Your task to perform on an android device: Set the phone to "Do not disturb". Image 0: 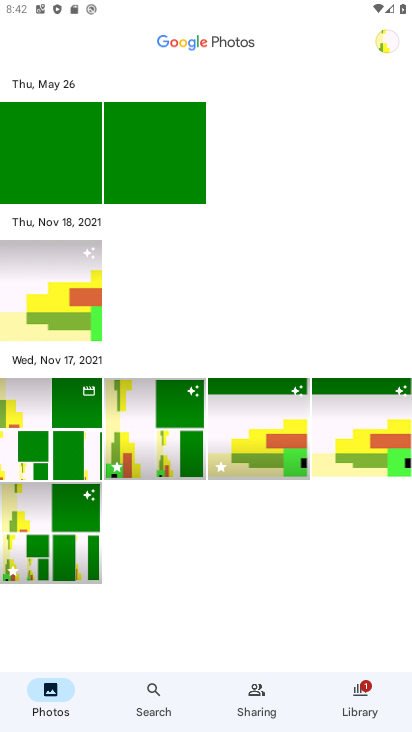
Step 0: press home button
Your task to perform on an android device: Set the phone to "Do not disturb". Image 1: 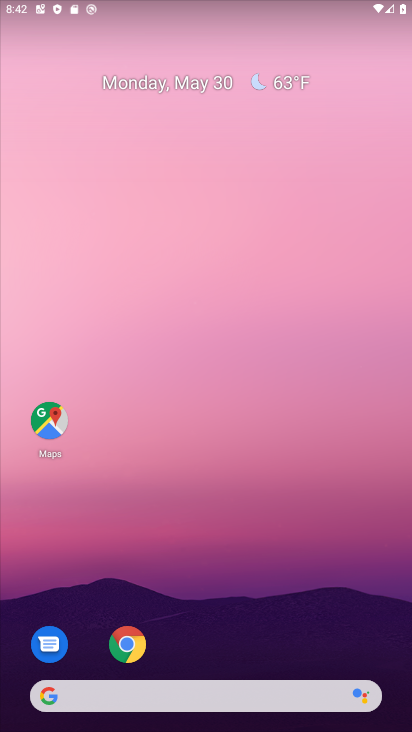
Step 1: drag from (225, 618) to (253, 26)
Your task to perform on an android device: Set the phone to "Do not disturb". Image 2: 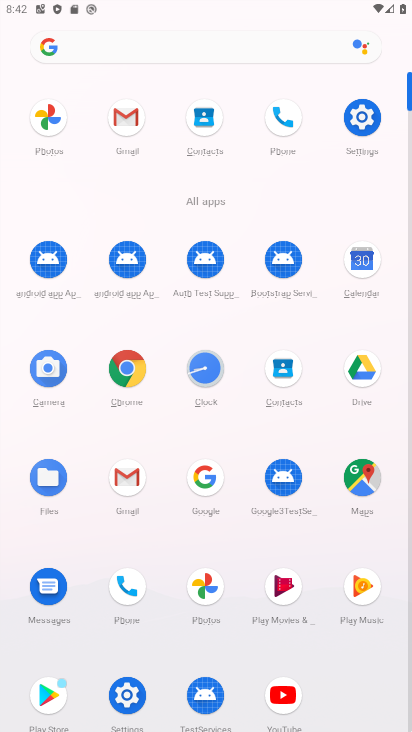
Step 2: click (363, 111)
Your task to perform on an android device: Set the phone to "Do not disturb". Image 3: 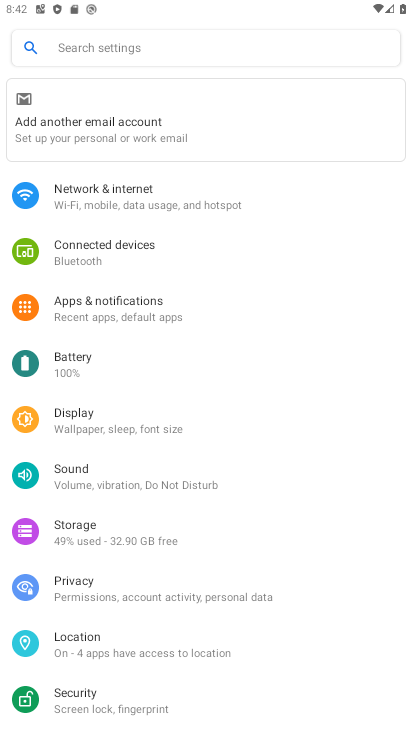
Step 3: click (109, 468)
Your task to perform on an android device: Set the phone to "Do not disturb". Image 4: 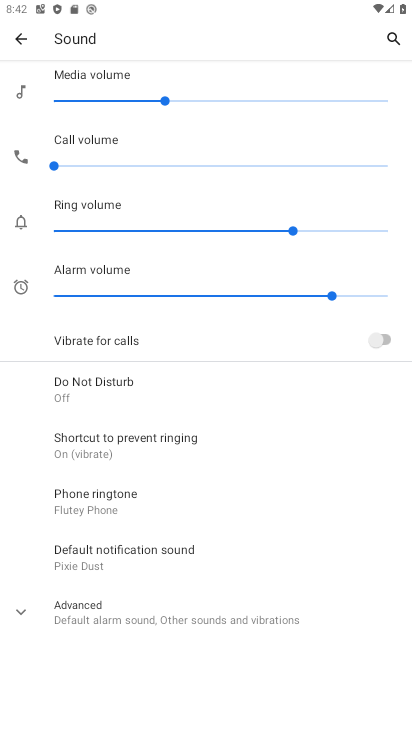
Step 4: click (99, 392)
Your task to perform on an android device: Set the phone to "Do not disturb". Image 5: 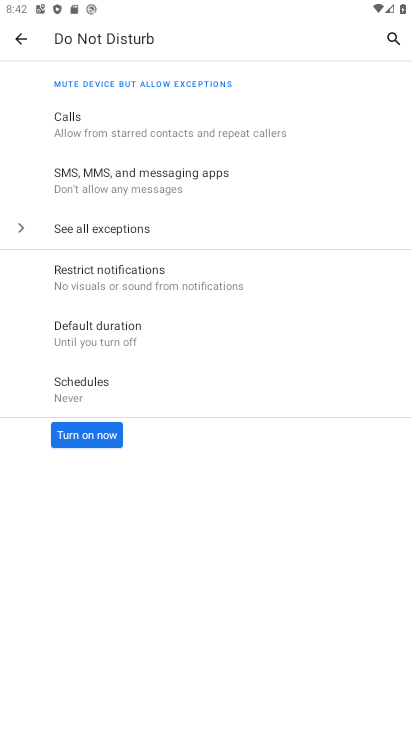
Step 5: click (79, 422)
Your task to perform on an android device: Set the phone to "Do not disturb". Image 6: 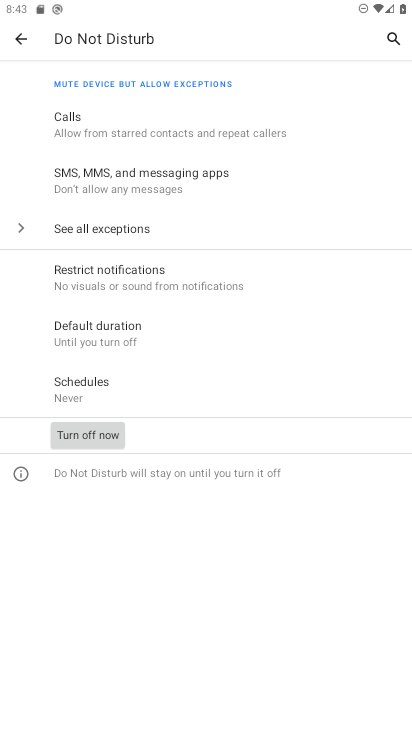
Step 6: task complete